Your task to perform on an android device: Open ESPN.com Image 0: 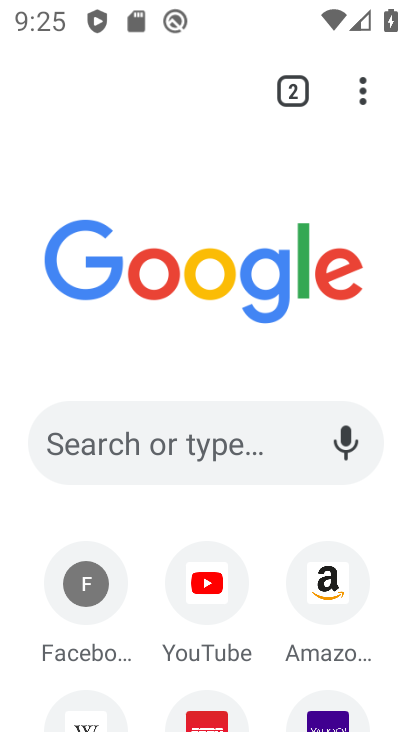
Step 0: press home button
Your task to perform on an android device: Open ESPN.com Image 1: 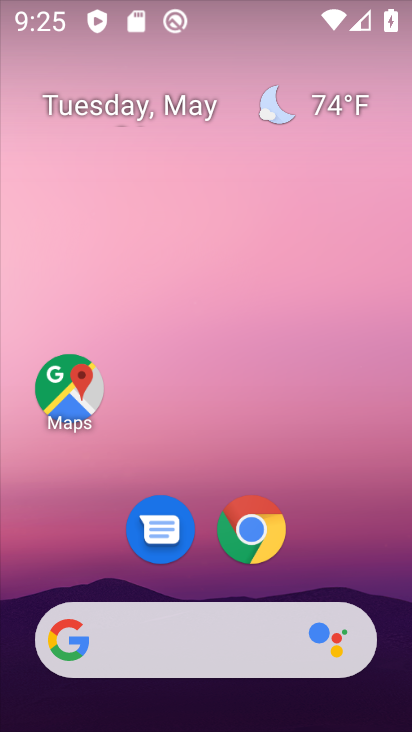
Step 1: click (243, 524)
Your task to perform on an android device: Open ESPN.com Image 2: 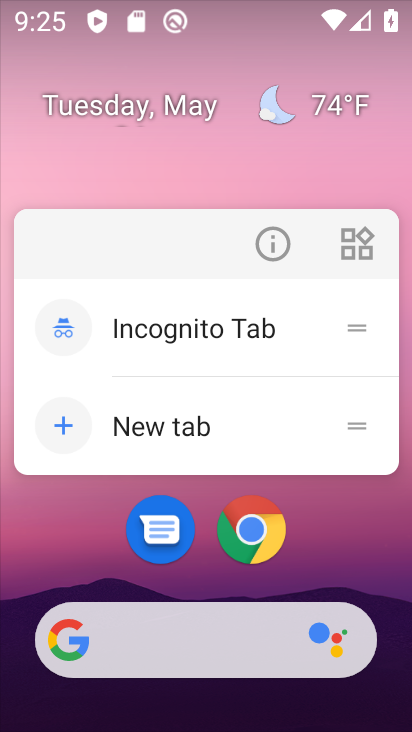
Step 2: click (258, 530)
Your task to perform on an android device: Open ESPN.com Image 3: 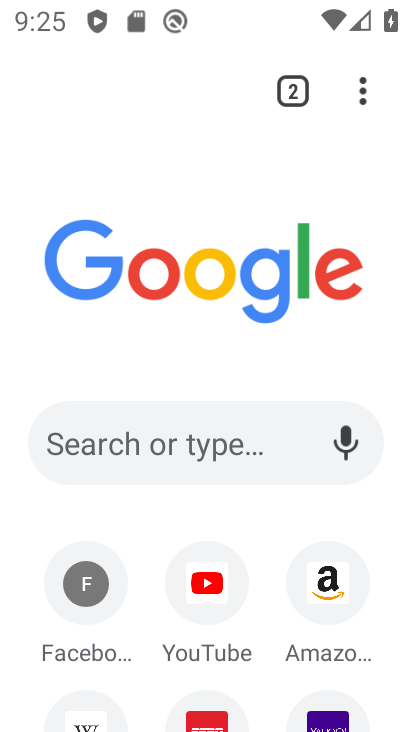
Step 3: click (180, 447)
Your task to perform on an android device: Open ESPN.com Image 4: 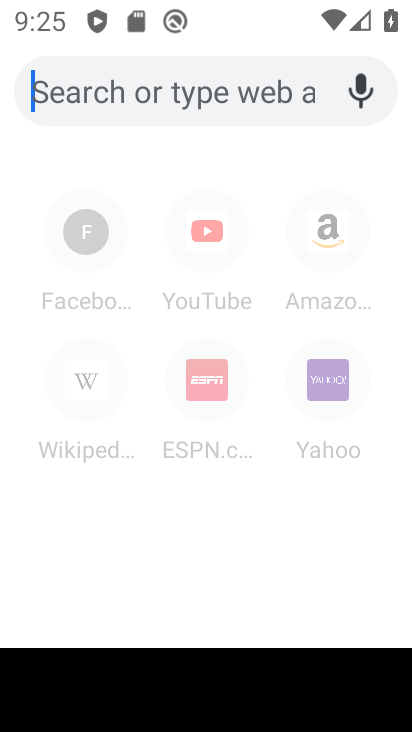
Step 4: type "ESPN.com"
Your task to perform on an android device: Open ESPN.com Image 5: 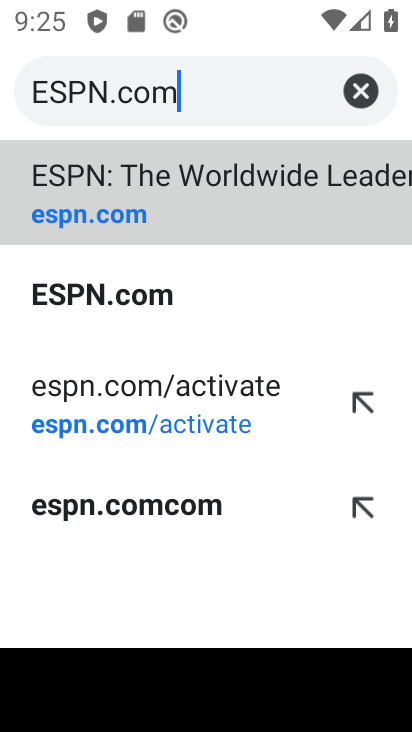
Step 5: click (110, 321)
Your task to perform on an android device: Open ESPN.com Image 6: 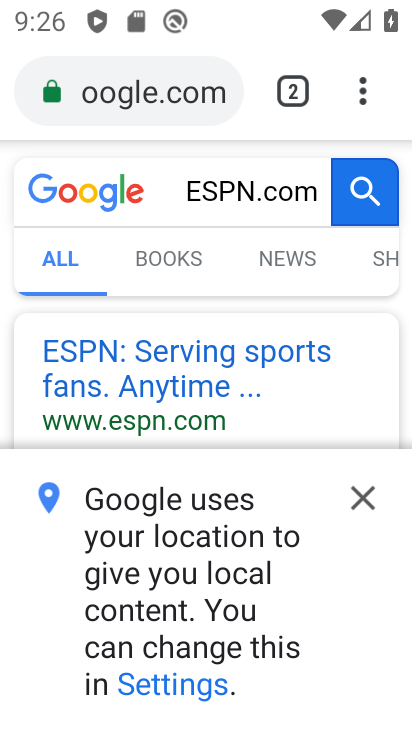
Step 6: task complete